Your task to perform on an android device: turn off smart reply in the gmail app Image 0: 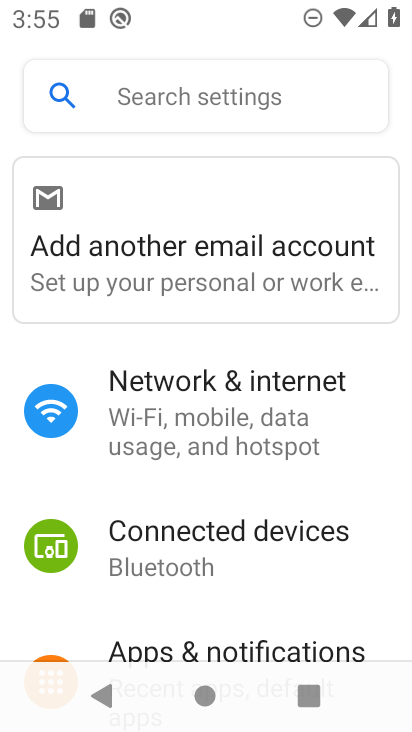
Step 0: press home button
Your task to perform on an android device: turn off smart reply in the gmail app Image 1: 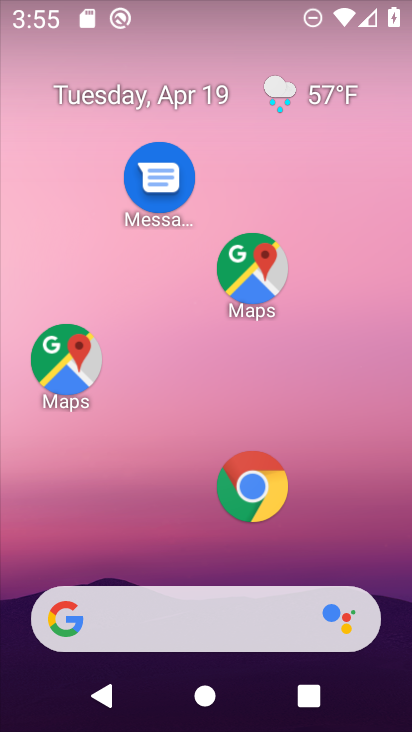
Step 1: drag from (320, 547) to (307, 84)
Your task to perform on an android device: turn off smart reply in the gmail app Image 2: 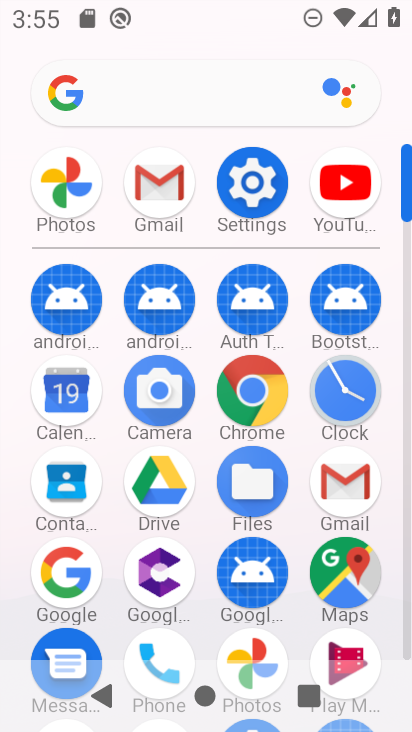
Step 2: click (340, 488)
Your task to perform on an android device: turn off smart reply in the gmail app Image 3: 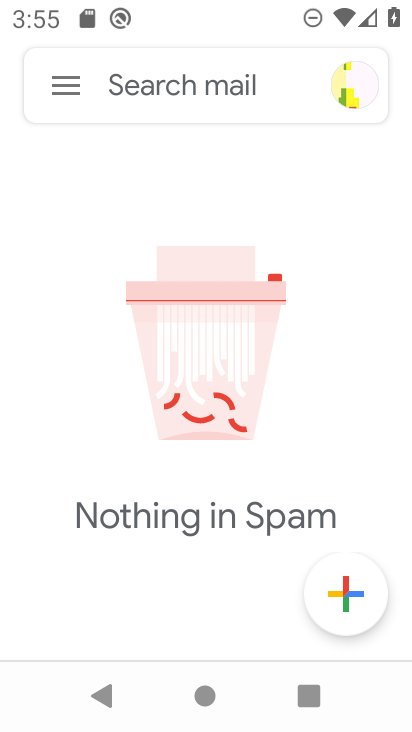
Step 3: click (64, 95)
Your task to perform on an android device: turn off smart reply in the gmail app Image 4: 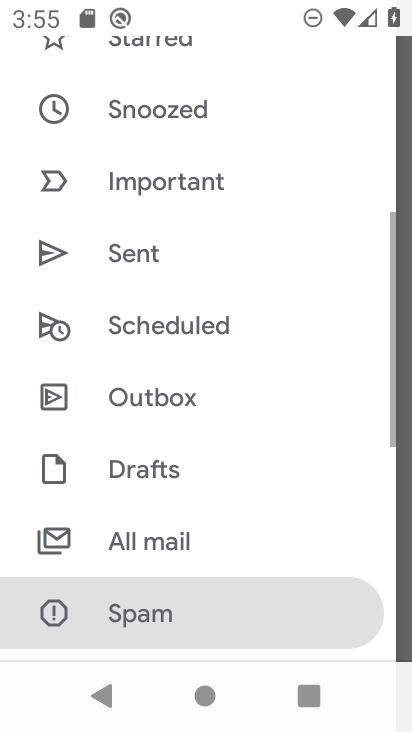
Step 4: drag from (180, 550) to (210, 249)
Your task to perform on an android device: turn off smart reply in the gmail app Image 5: 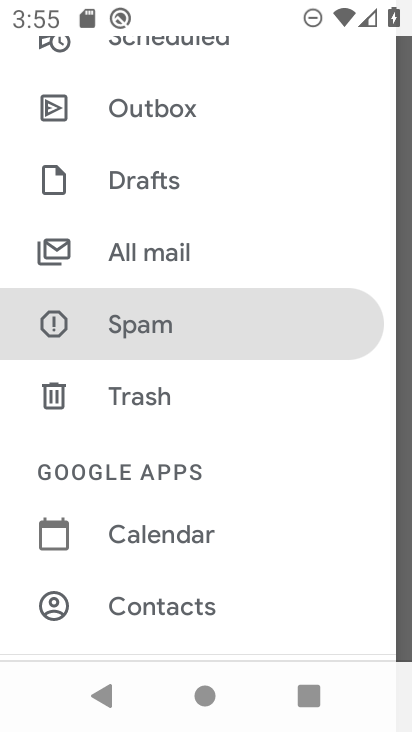
Step 5: drag from (179, 550) to (213, 238)
Your task to perform on an android device: turn off smart reply in the gmail app Image 6: 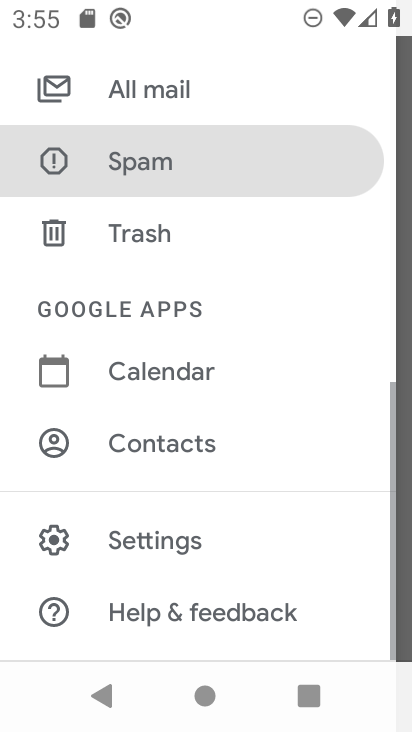
Step 6: click (197, 533)
Your task to perform on an android device: turn off smart reply in the gmail app Image 7: 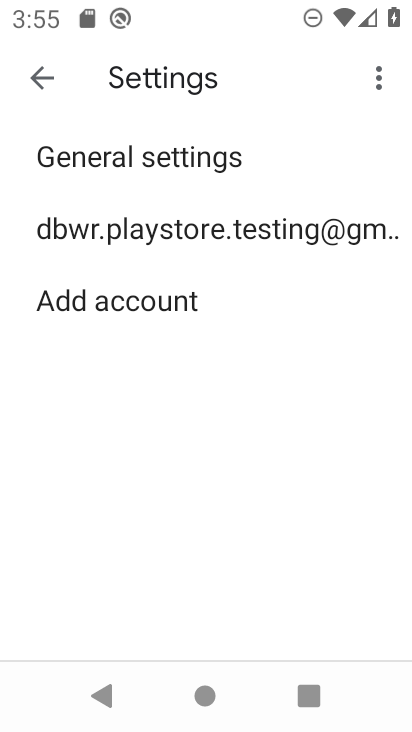
Step 7: click (189, 222)
Your task to perform on an android device: turn off smart reply in the gmail app Image 8: 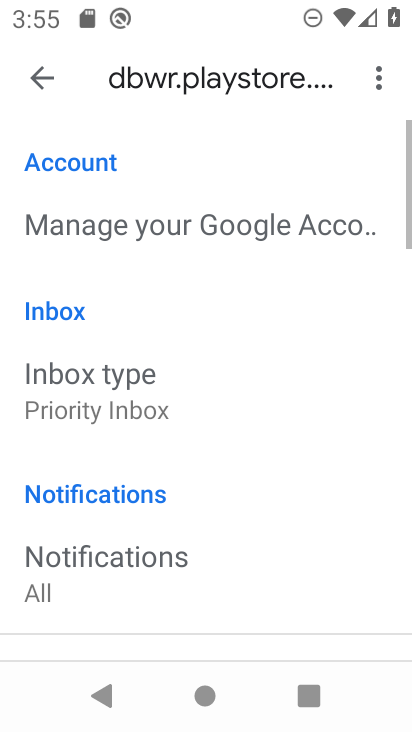
Step 8: drag from (196, 561) to (234, 259)
Your task to perform on an android device: turn off smart reply in the gmail app Image 9: 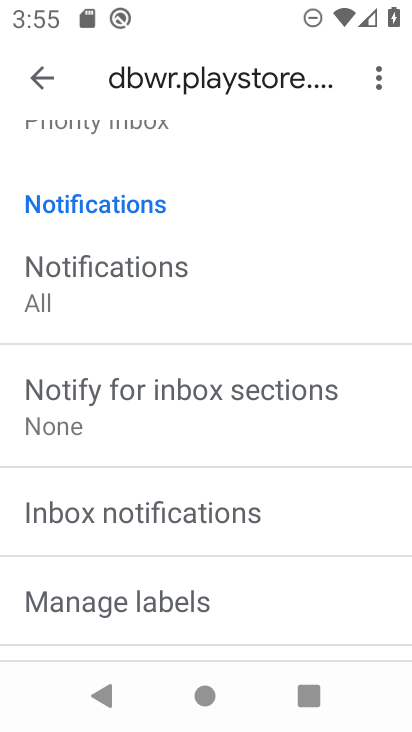
Step 9: drag from (214, 564) to (276, 275)
Your task to perform on an android device: turn off smart reply in the gmail app Image 10: 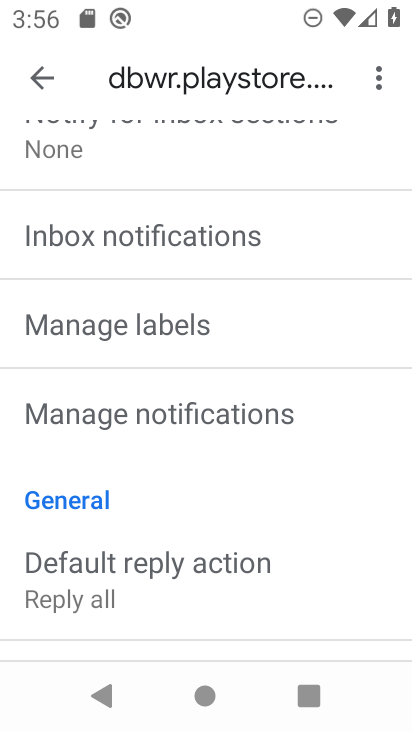
Step 10: drag from (253, 541) to (277, 261)
Your task to perform on an android device: turn off smart reply in the gmail app Image 11: 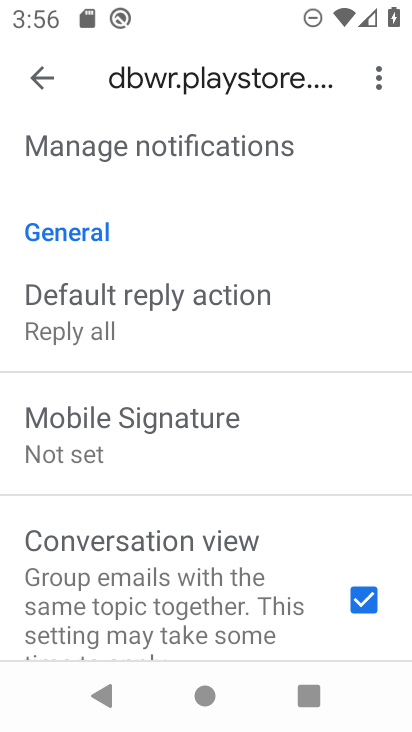
Step 11: drag from (243, 499) to (272, 262)
Your task to perform on an android device: turn off smart reply in the gmail app Image 12: 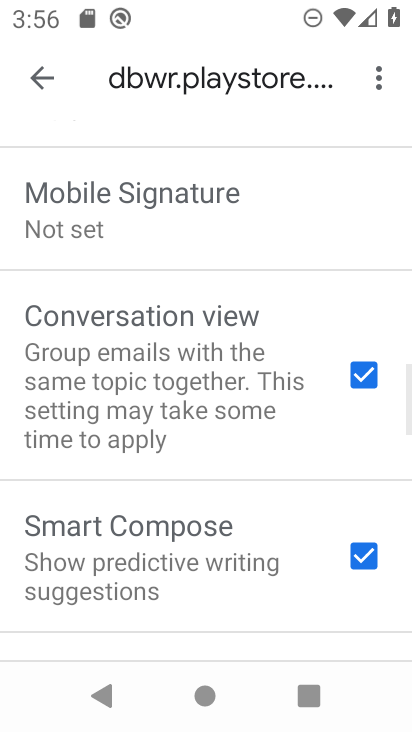
Step 12: drag from (243, 559) to (271, 284)
Your task to perform on an android device: turn off smart reply in the gmail app Image 13: 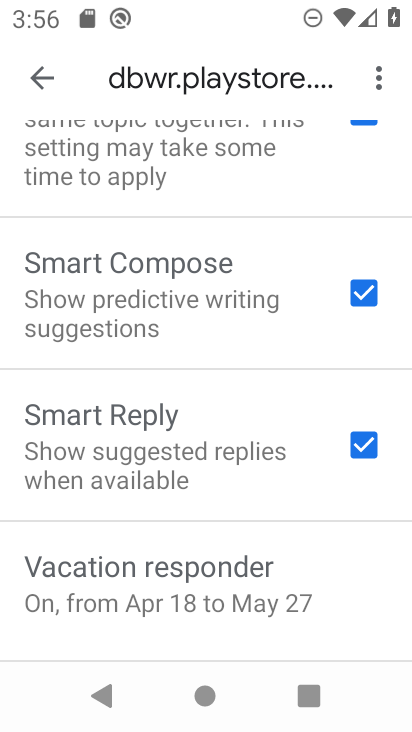
Step 13: click (355, 449)
Your task to perform on an android device: turn off smart reply in the gmail app Image 14: 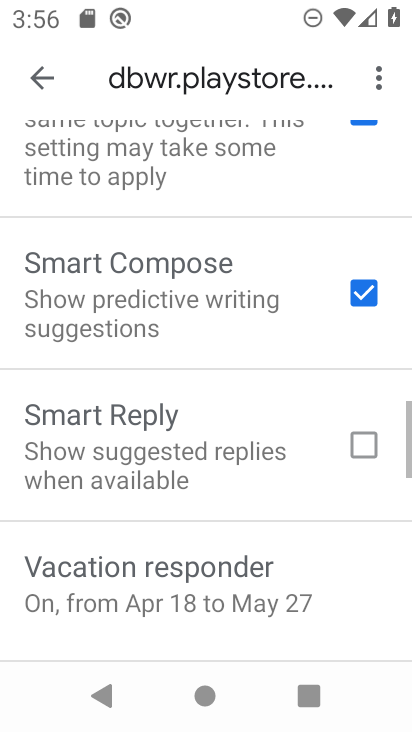
Step 14: task complete